Your task to perform on an android device: Open accessibility settings Image 0: 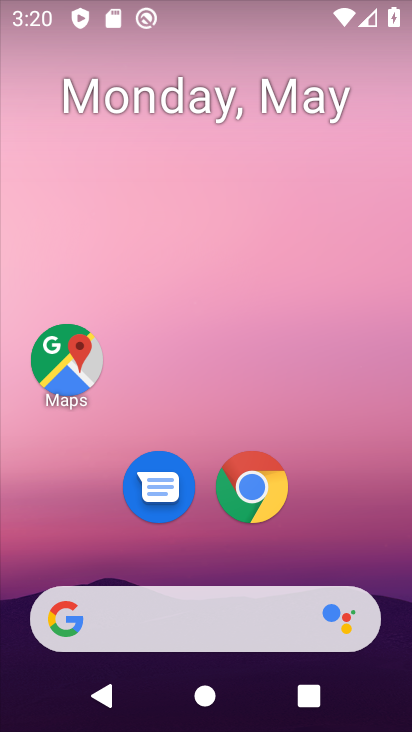
Step 0: drag from (221, 576) to (221, 218)
Your task to perform on an android device: Open accessibility settings Image 1: 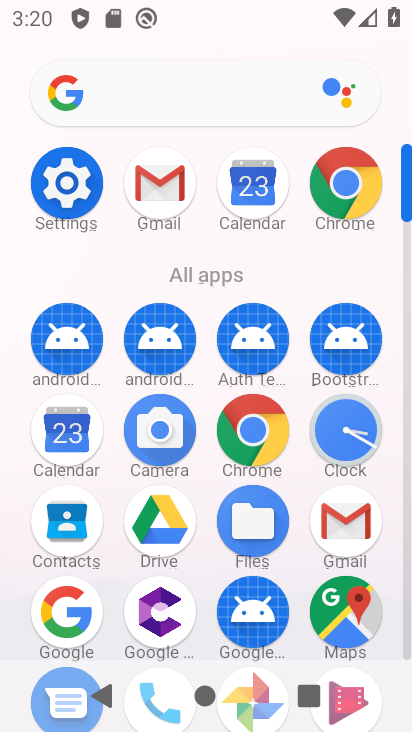
Step 1: click (64, 193)
Your task to perform on an android device: Open accessibility settings Image 2: 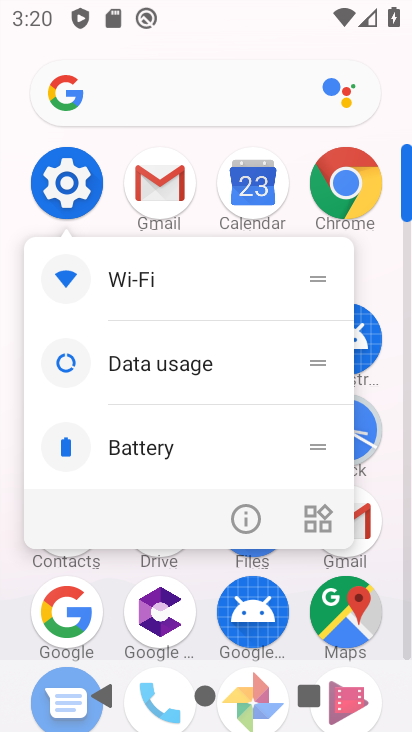
Step 2: click (51, 170)
Your task to perform on an android device: Open accessibility settings Image 3: 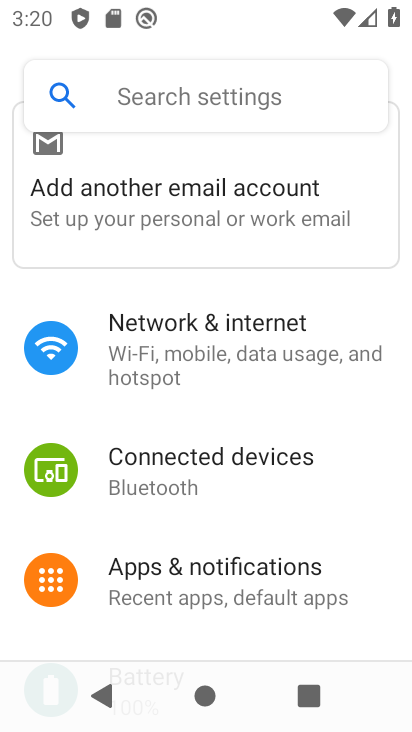
Step 3: drag from (213, 605) to (244, 218)
Your task to perform on an android device: Open accessibility settings Image 4: 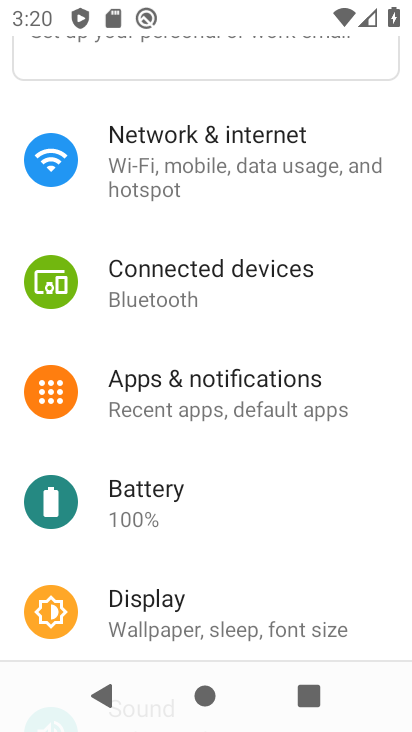
Step 4: drag from (209, 617) to (252, 270)
Your task to perform on an android device: Open accessibility settings Image 5: 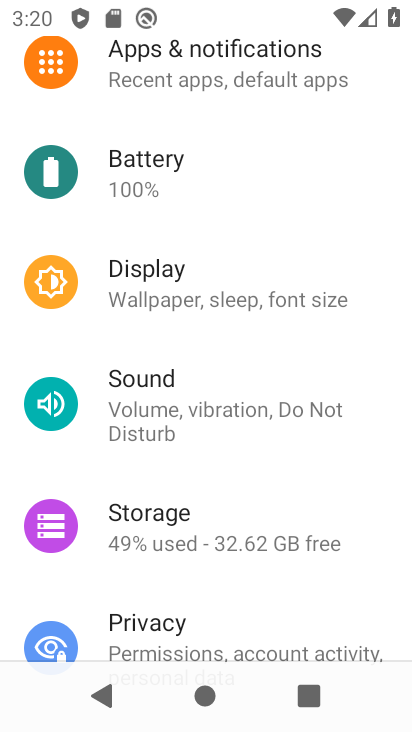
Step 5: drag from (220, 643) to (250, 289)
Your task to perform on an android device: Open accessibility settings Image 6: 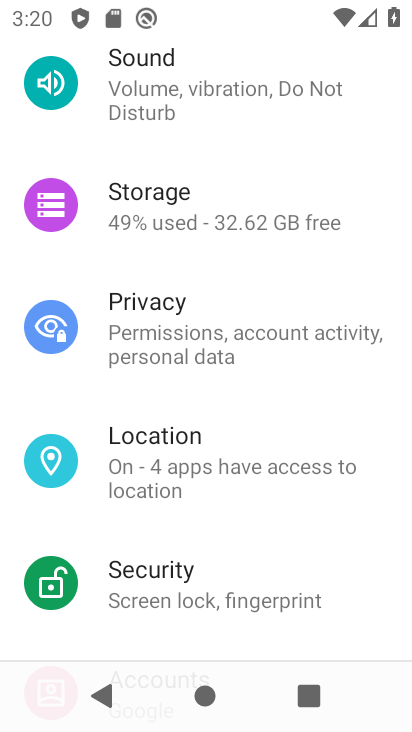
Step 6: drag from (185, 601) to (236, 277)
Your task to perform on an android device: Open accessibility settings Image 7: 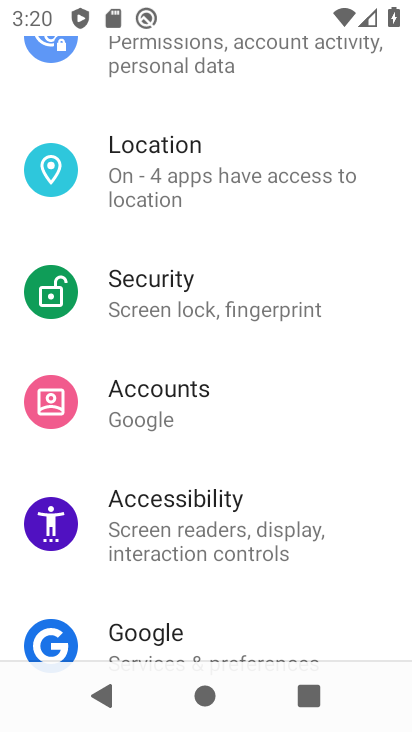
Step 7: click (189, 519)
Your task to perform on an android device: Open accessibility settings Image 8: 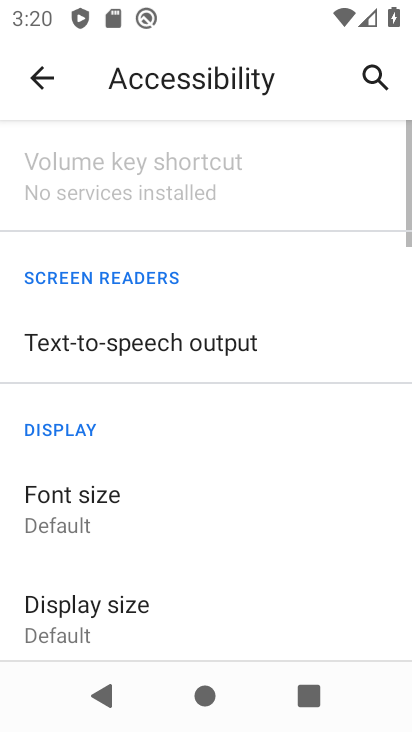
Step 8: task complete